Your task to perform on an android device: Is it going to rain today? Image 0: 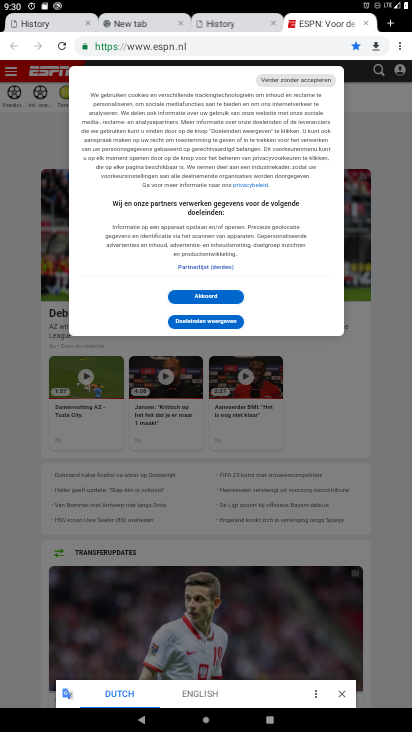
Step 0: press home button
Your task to perform on an android device: Is it going to rain today? Image 1: 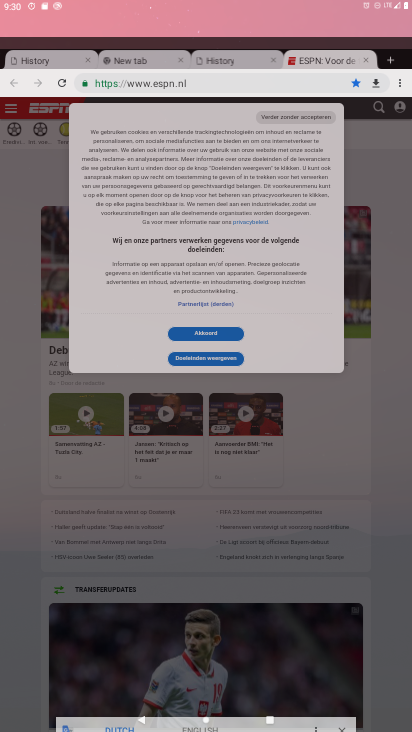
Step 1: drag from (385, 655) to (228, 63)
Your task to perform on an android device: Is it going to rain today? Image 2: 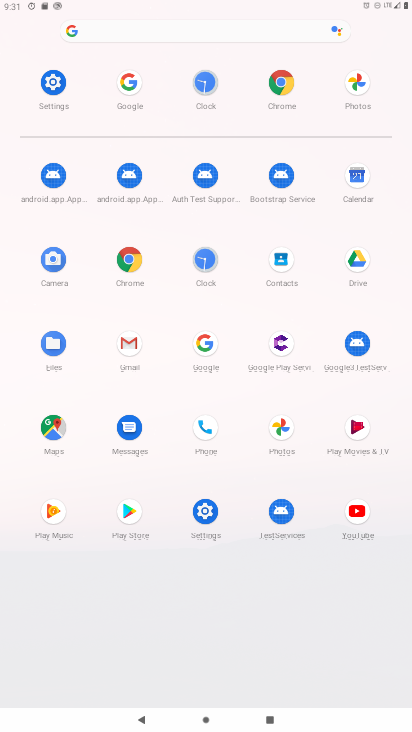
Step 2: click (197, 339)
Your task to perform on an android device: Is it going to rain today? Image 3: 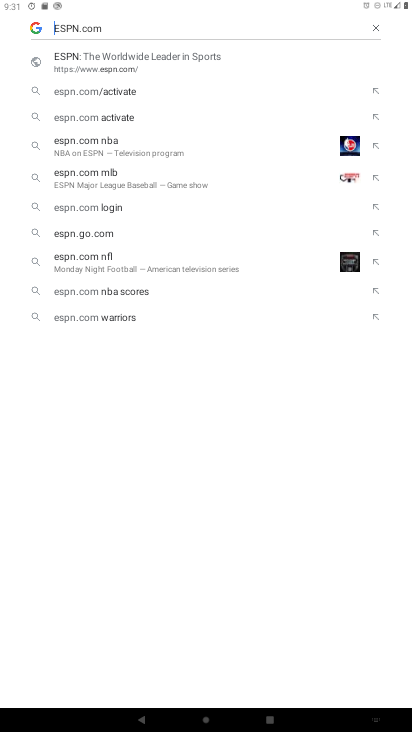
Step 3: click (375, 27)
Your task to perform on an android device: Is it going to rain today? Image 4: 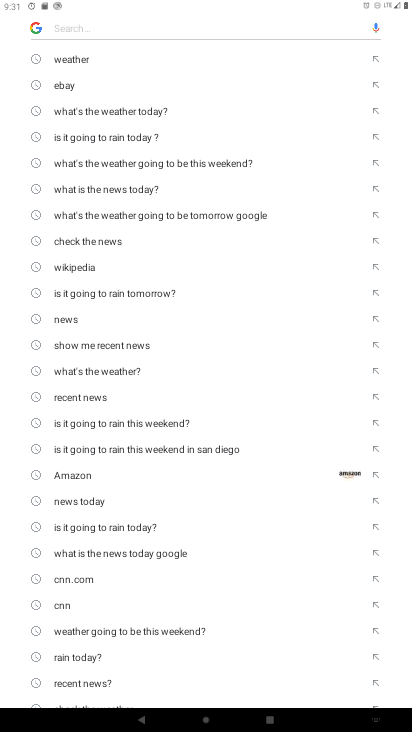
Step 4: click (112, 137)
Your task to perform on an android device: Is it going to rain today? Image 5: 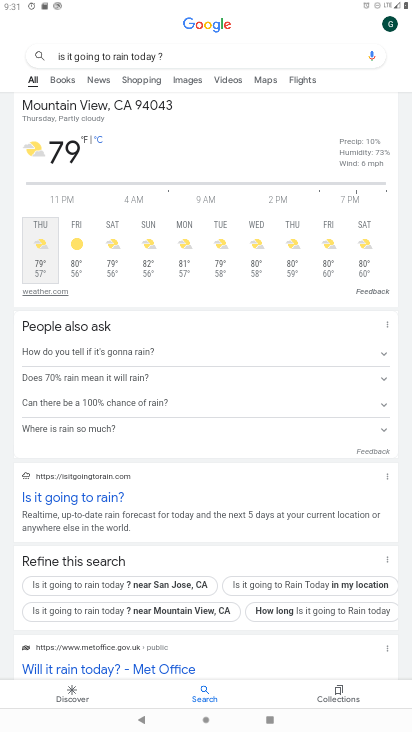
Step 5: task complete